Your task to perform on an android device: check google app version Image 0: 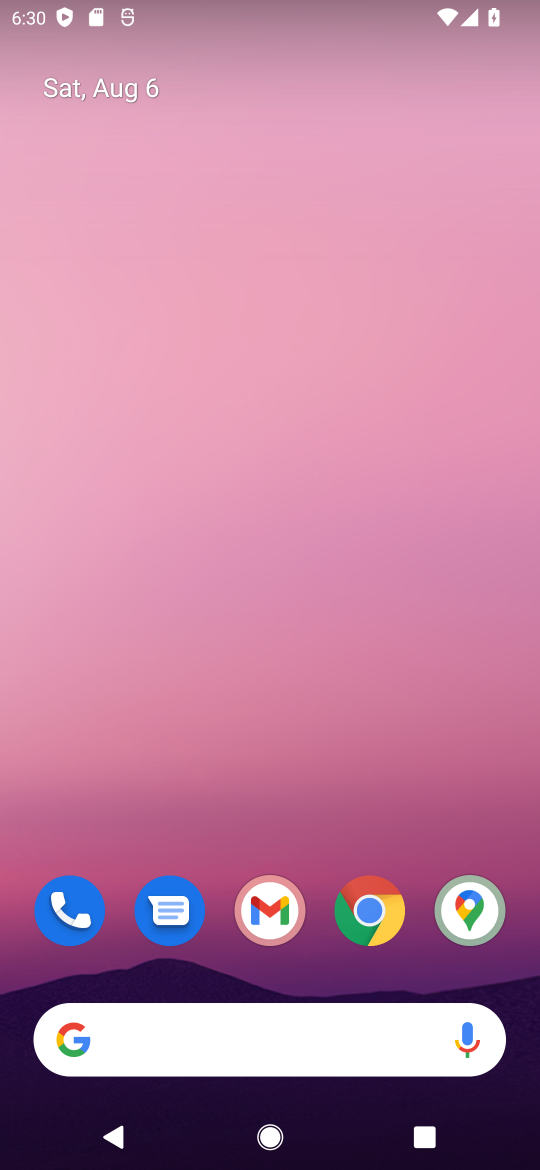
Step 0: drag from (515, 1136) to (400, 178)
Your task to perform on an android device: check google app version Image 1: 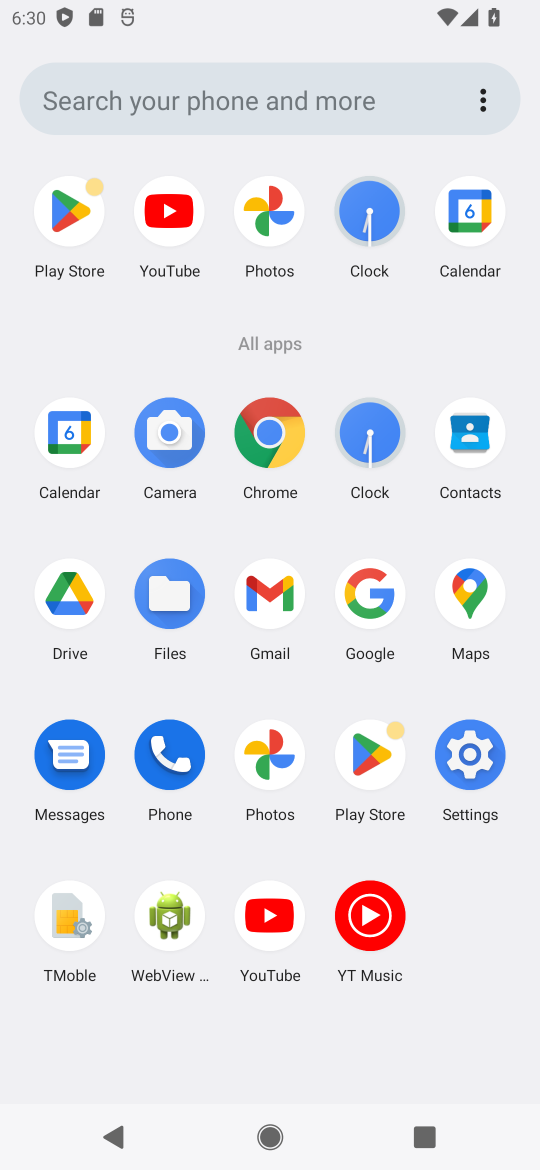
Step 1: click (370, 601)
Your task to perform on an android device: check google app version Image 2: 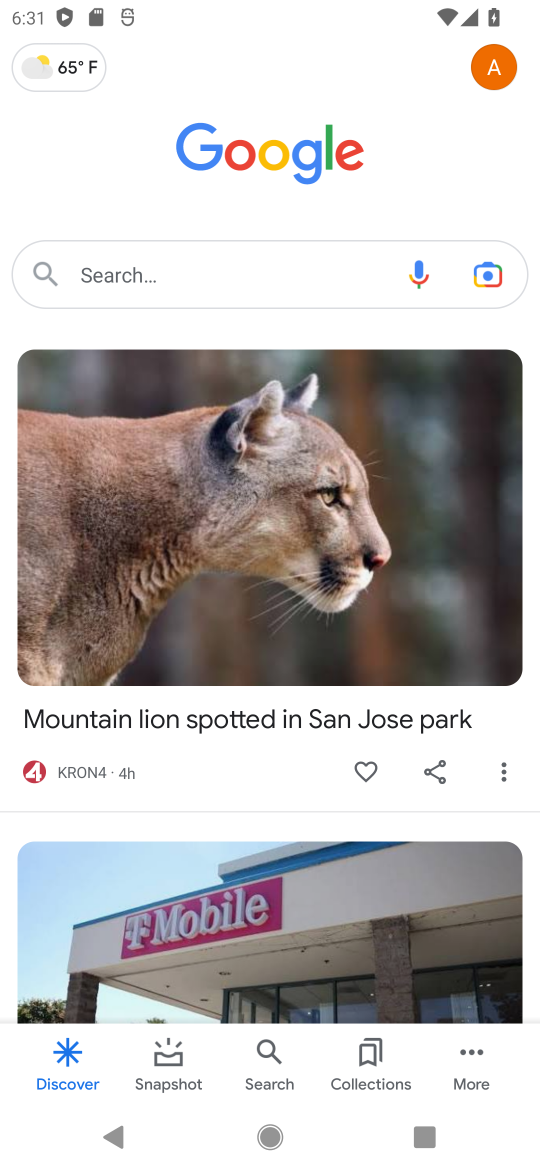
Step 2: click (474, 1056)
Your task to perform on an android device: check google app version Image 3: 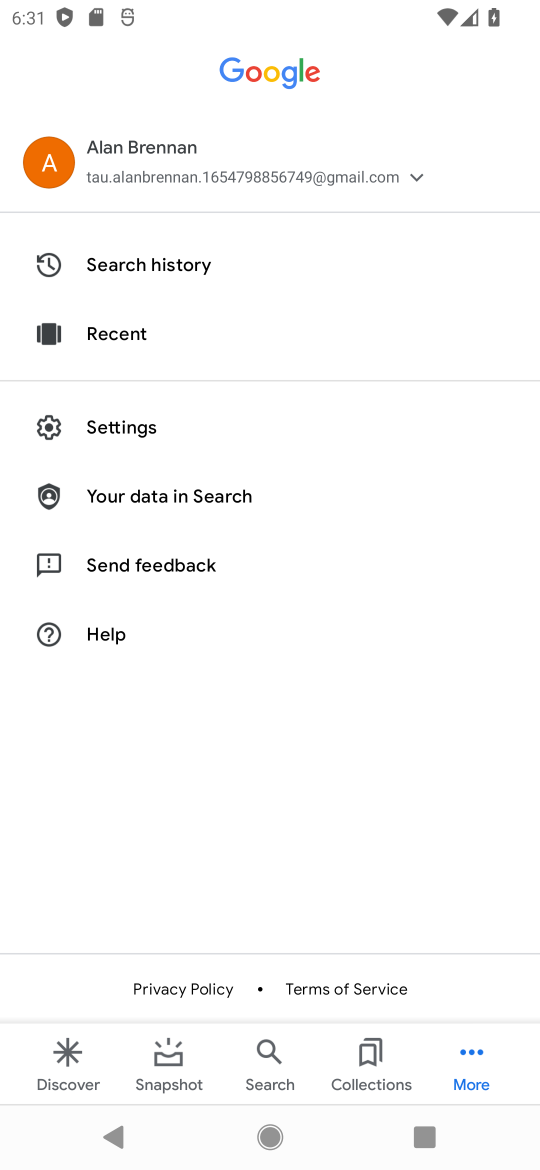
Step 3: click (117, 413)
Your task to perform on an android device: check google app version Image 4: 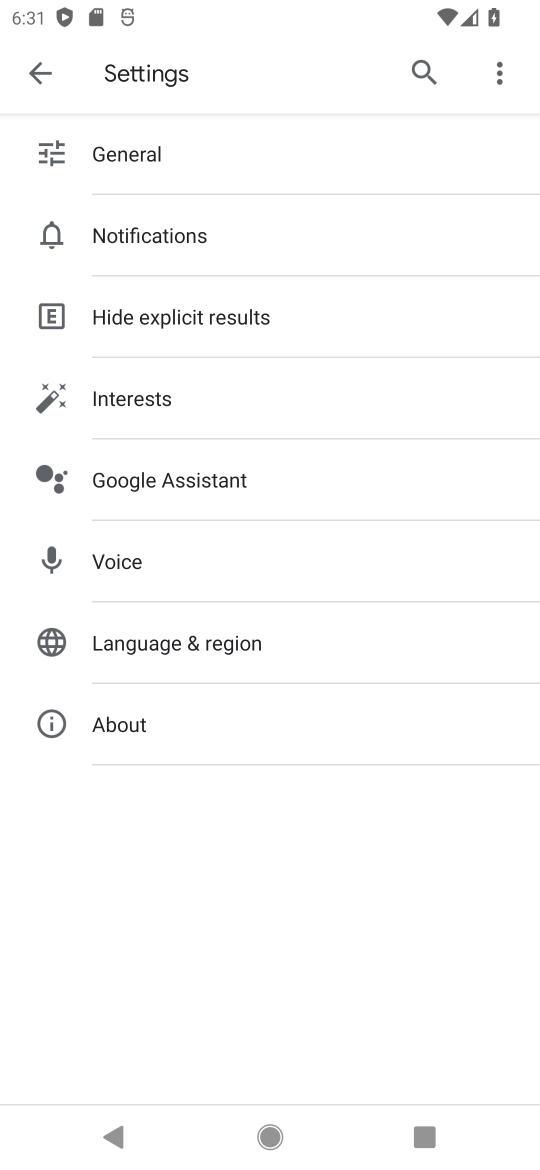
Step 4: click (235, 728)
Your task to perform on an android device: check google app version Image 5: 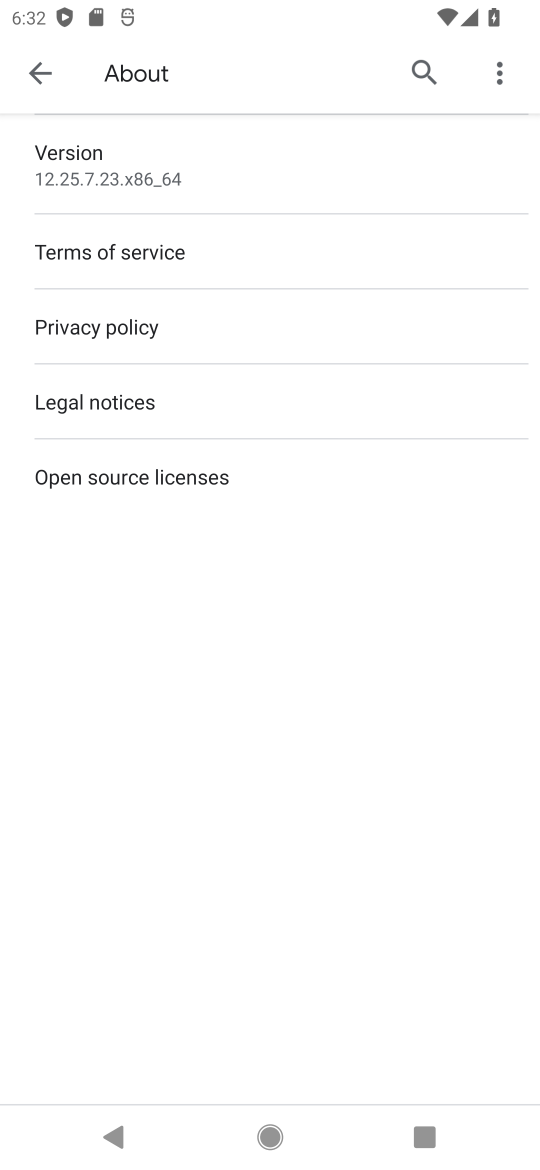
Step 5: click (140, 142)
Your task to perform on an android device: check google app version Image 6: 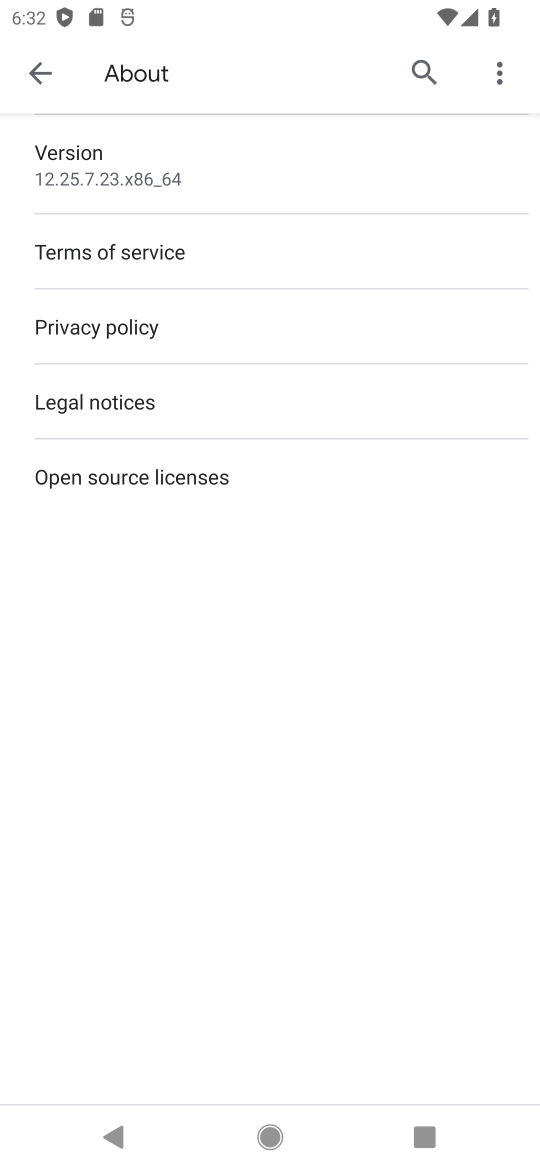
Step 6: task complete